Your task to perform on an android device: Go to location settings Image 0: 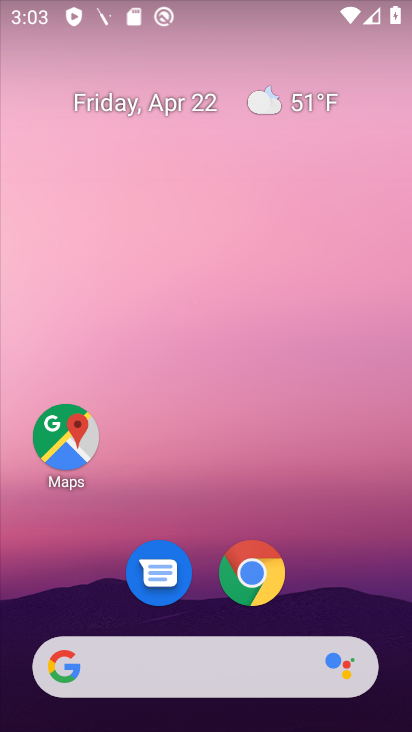
Step 0: drag from (333, 563) to (324, 97)
Your task to perform on an android device: Go to location settings Image 1: 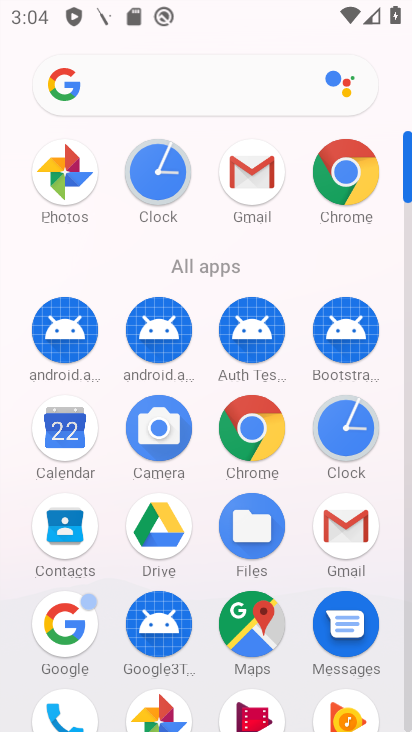
Step 1: drag from (218, 518) to (262, 200)
Your task to perform on an android device: Go to location settings Image 2: 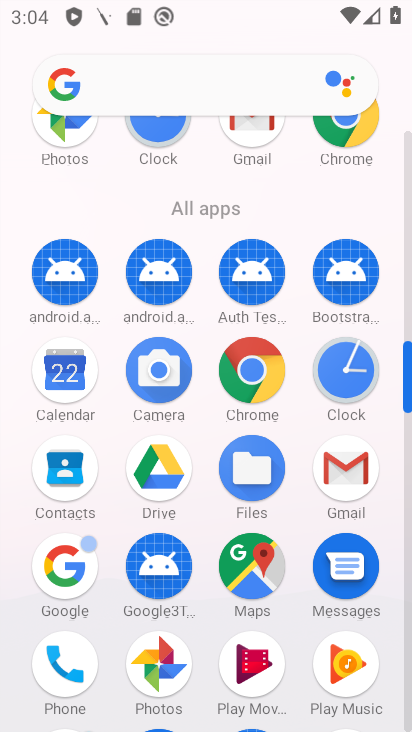
Step 2: drag from (209, 577) to (270, 246)
Your task to perform on an android device: Go to location settings Image 3: 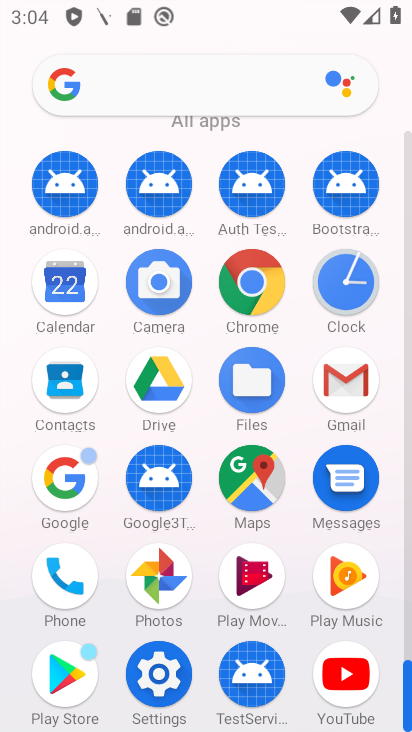
Step 3: click (162, 679)
Your task to perform on an android device: Go to location settings Image 4: 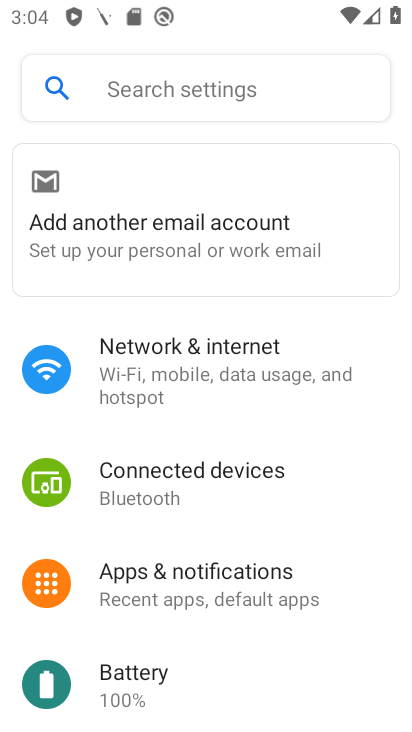
Step 4: drag from (232, 655) to (339, 182)
Your task to perform on an android device: Go to location settings Image 5: 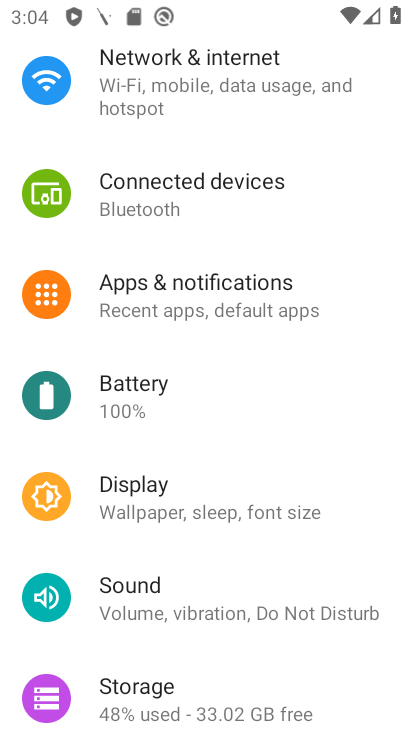
Step 5: drag from (204, 579) to (285, 121)
Your task to perform on an android device: Go to location settings Image 6: 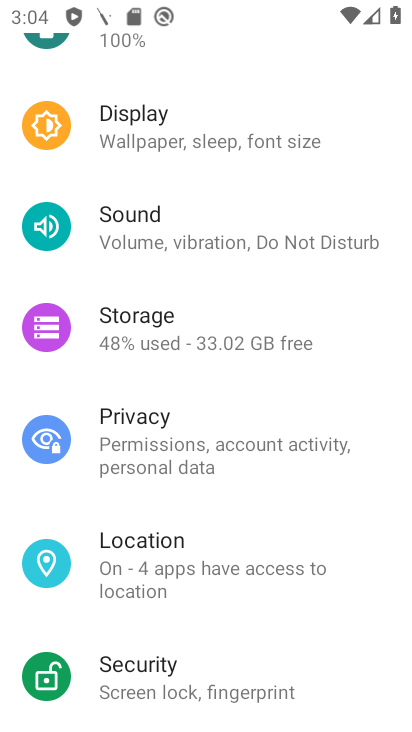
Step 6: click (219, 553)
Your task to perform on an android device: Go to location settings Image 7: 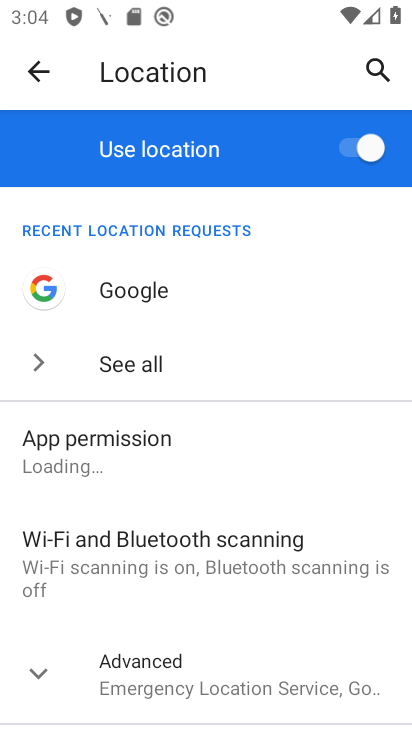
Step 7: task complete